Your task to perform on an android device: install app "McDonald's" Image 0: 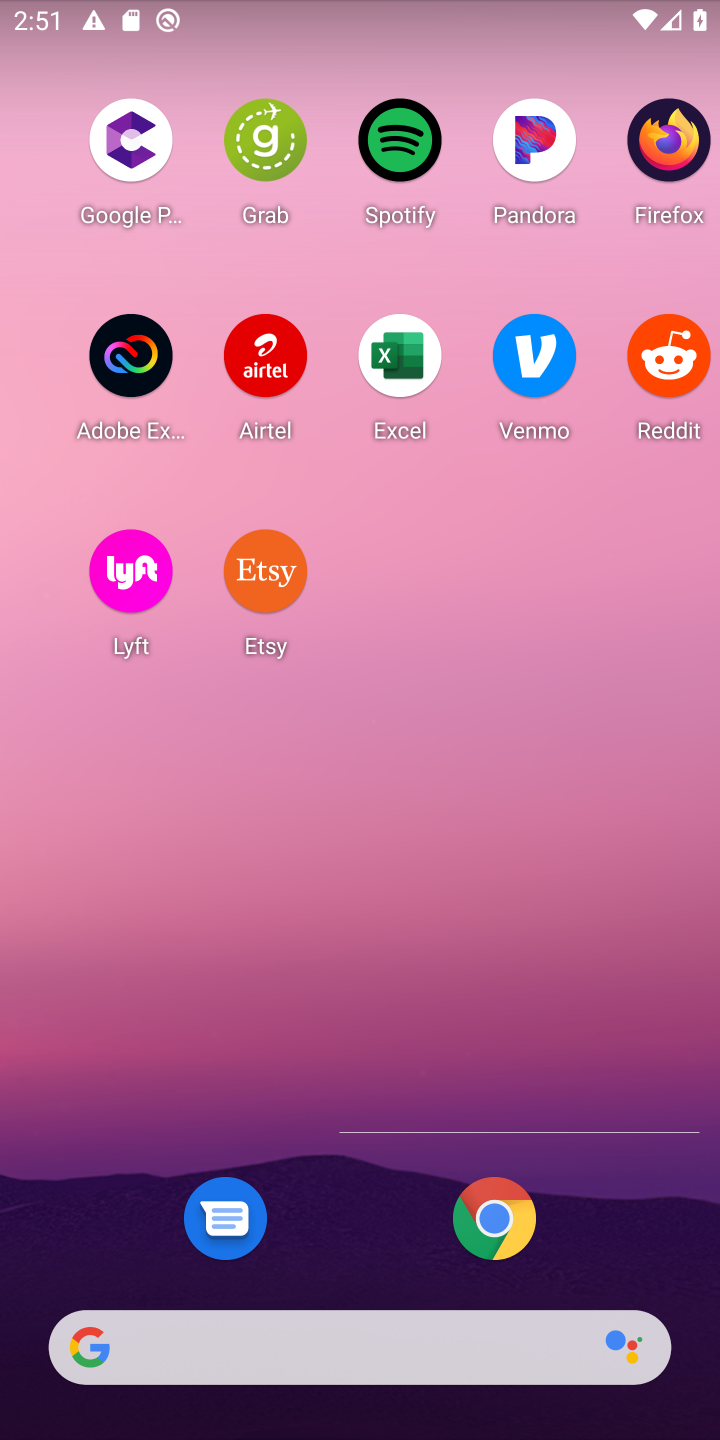
Step 0: drag from (356, 1130) to (362, 489)
Your task to perform on an android device: install app "McDonald's" Image 1: 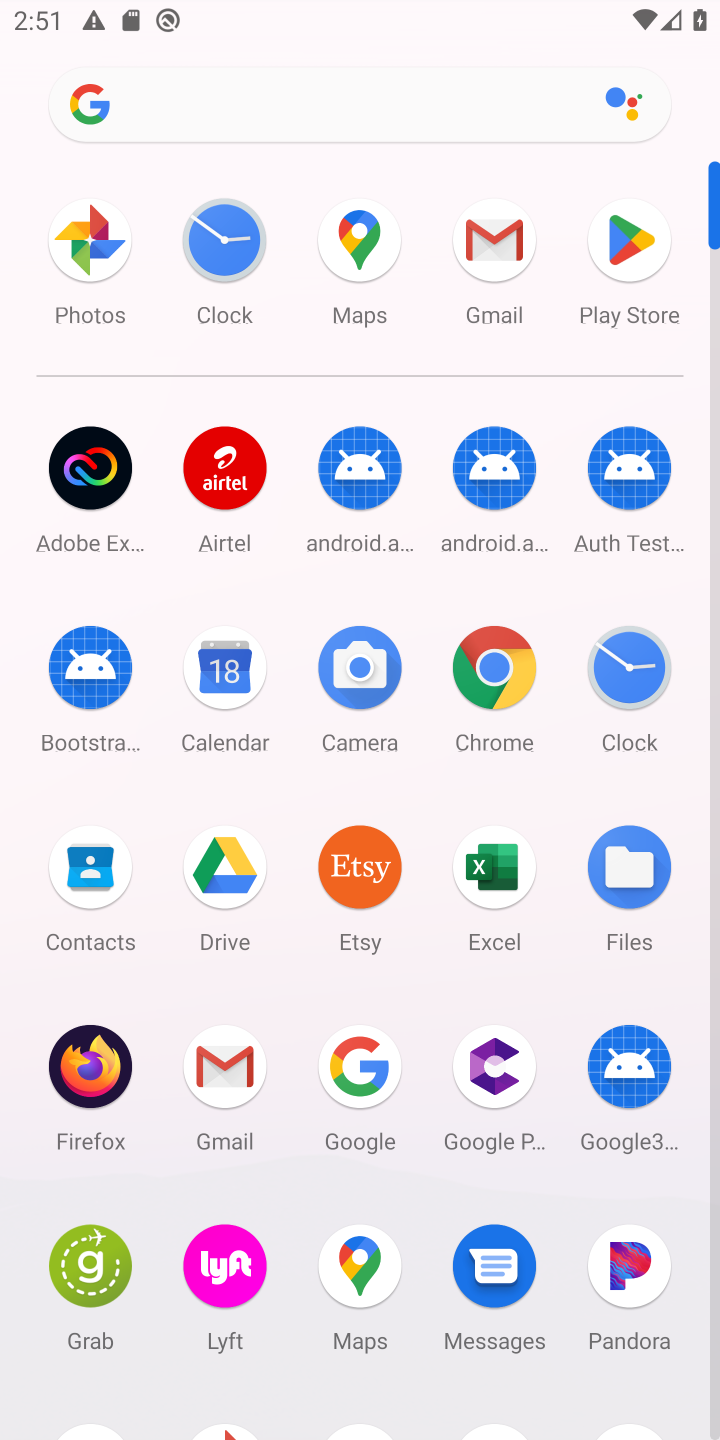
Step 1: click (602, 255)
Your task to perform on an android device: install app "McDonald's" Image 2: 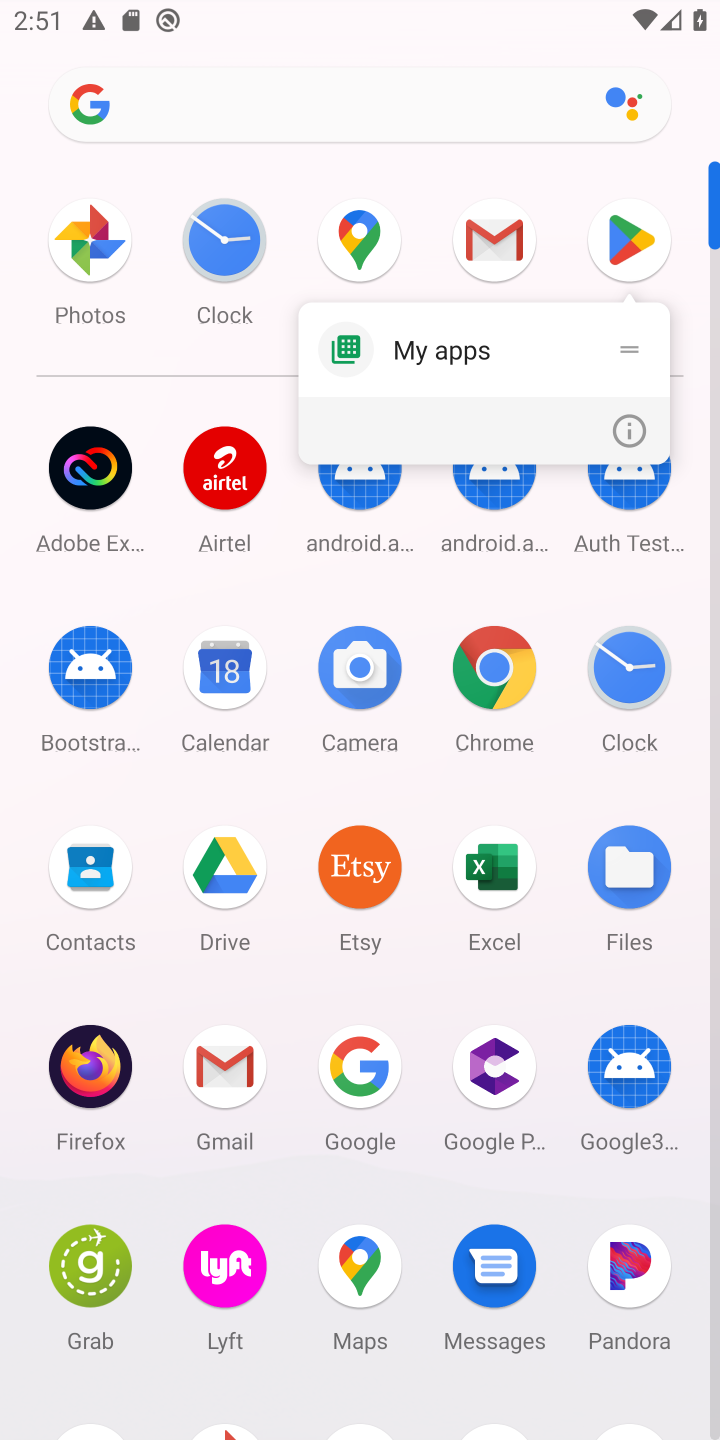
Step 2: click (623, 231)
Your task to perform on an android device: install app "McDonald's" Image 3: 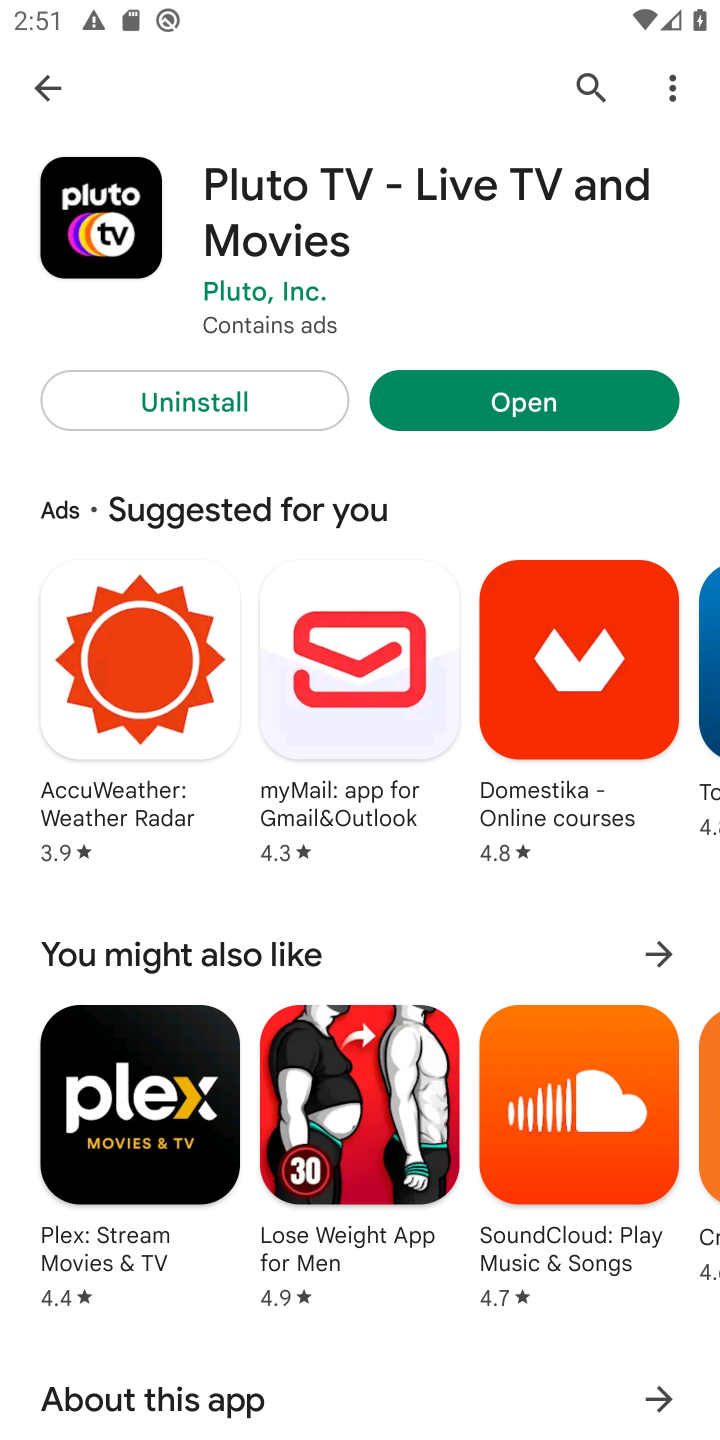
Step 3: click (601, 64)
Your task to perform on an android device: install app "McDonald's" Image 4: 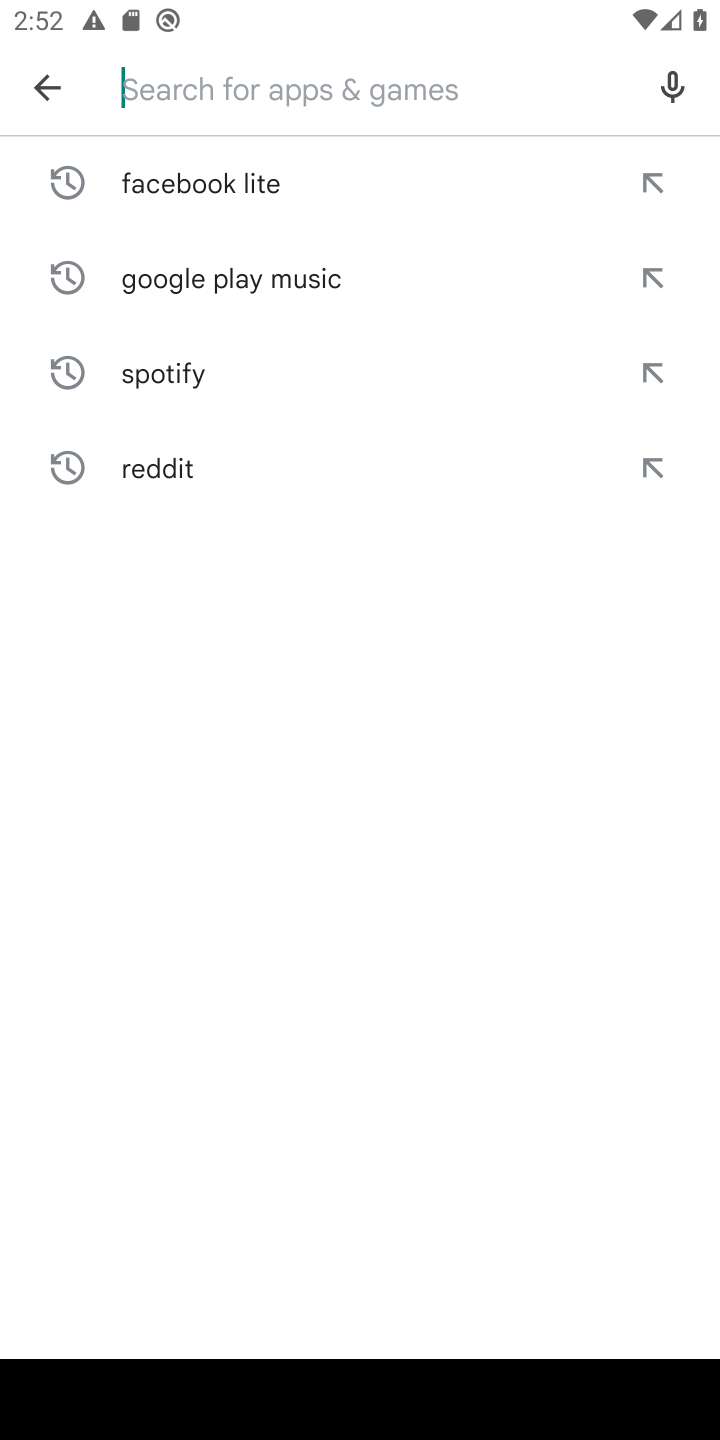
Step 4: type "McDonald's"
Your task to perform on an android device: install app "McDonald's" Image 5: 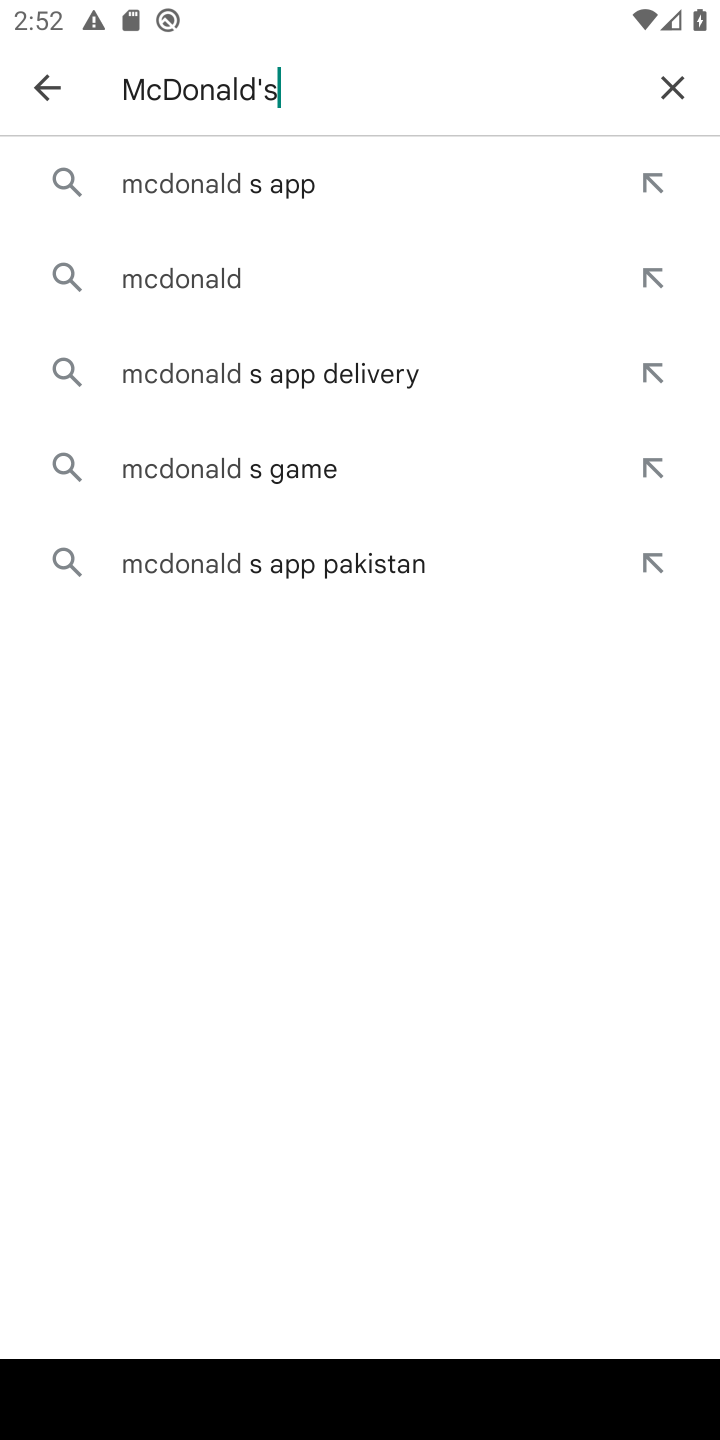
Step 5: type ""
Your task to perform on an android device: install app "McDonald's" Image 6: 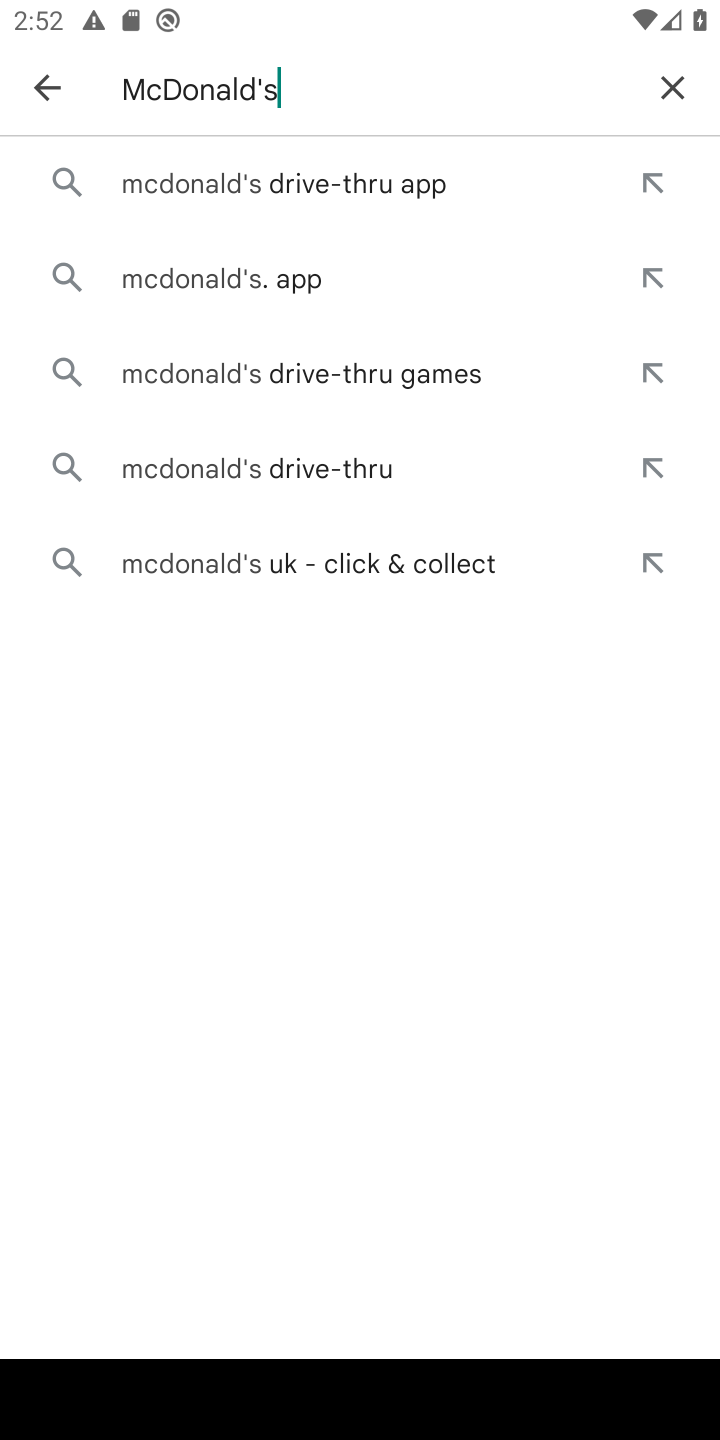
Step 6: click (319, 266)
Your task to perform on an android device: install app "McDonald's" Image 7: 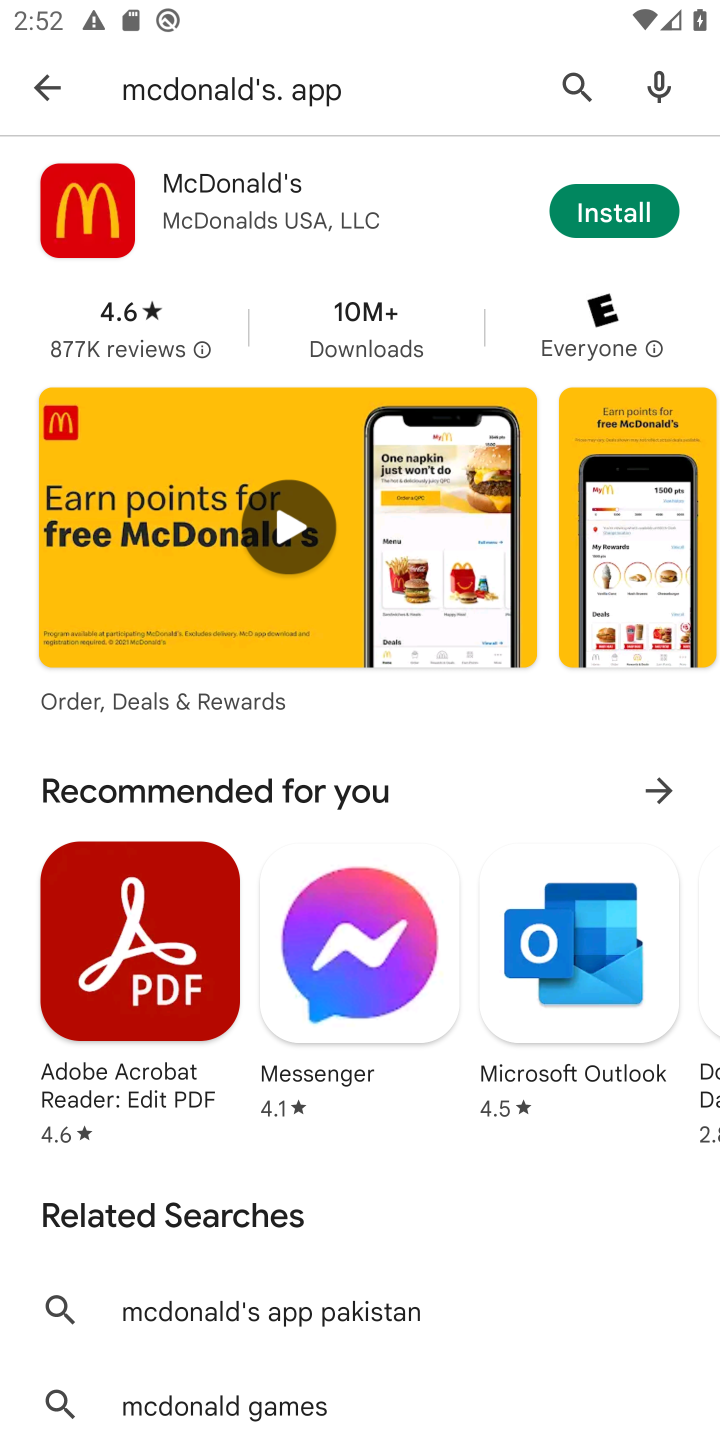
Step 7: click (587, 223)
Your task to perform on an android device: install app "McDonald's" Image 8: 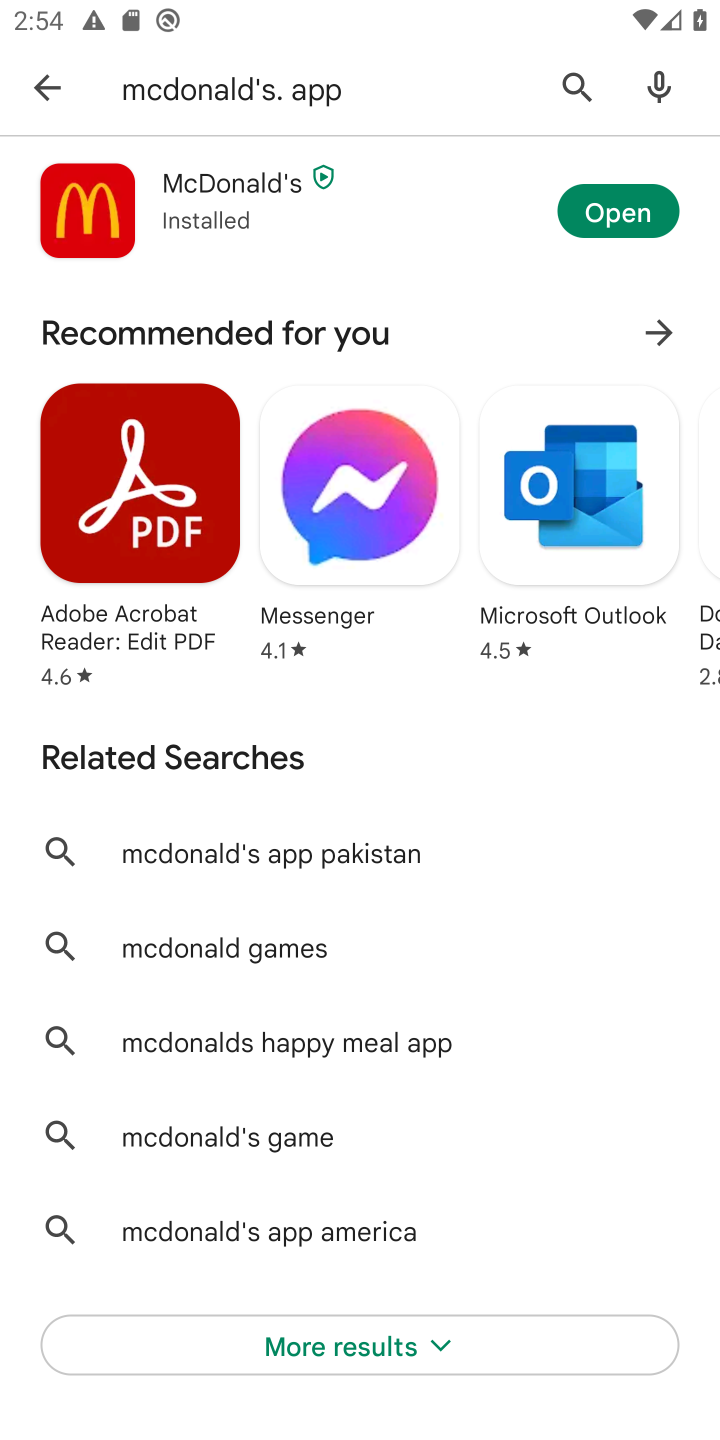
Step 8: task complete